Your task to perform on an android device: Go to display settings Image 0: 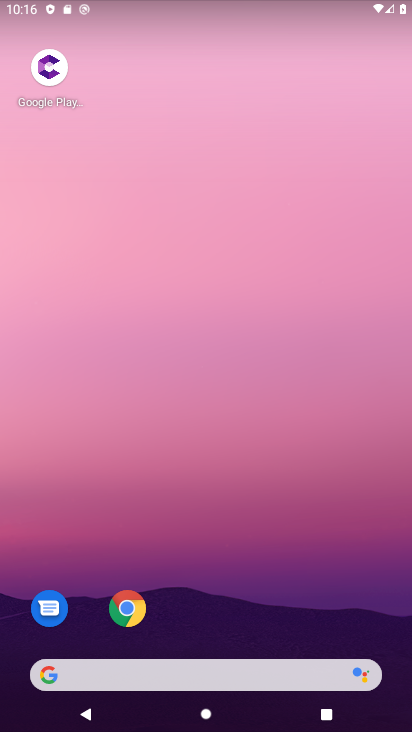
Step 0: drag from (57, 470) to (405, 500)
Your task to perform on an android device: Go to display settings Image 1: 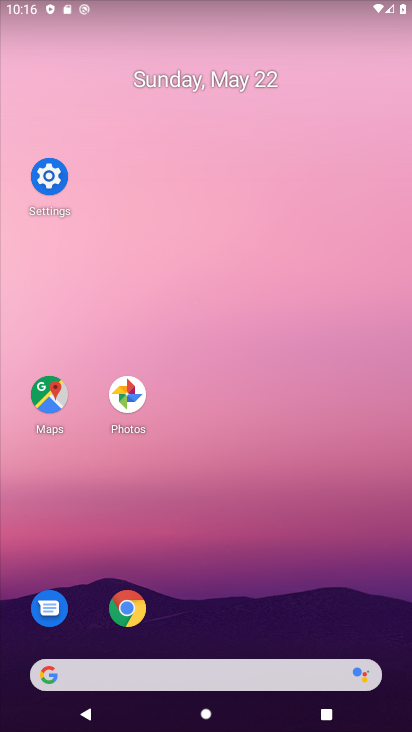
Step 1: click (68, 168)
Your task to perform on an android device: Go to display settings Image 2: 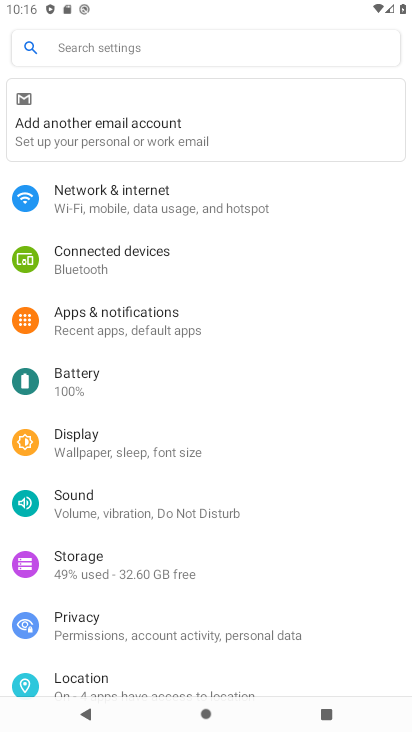
Step 2: click (219, 440)
Your task to perform on an android device: Go to display settings Image 3: 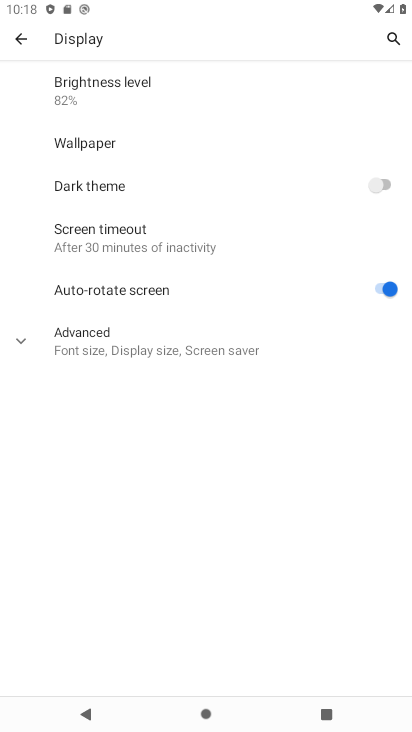
Step 3: task complete